Your task to perform on an android device: Open privacy settings Image 0: 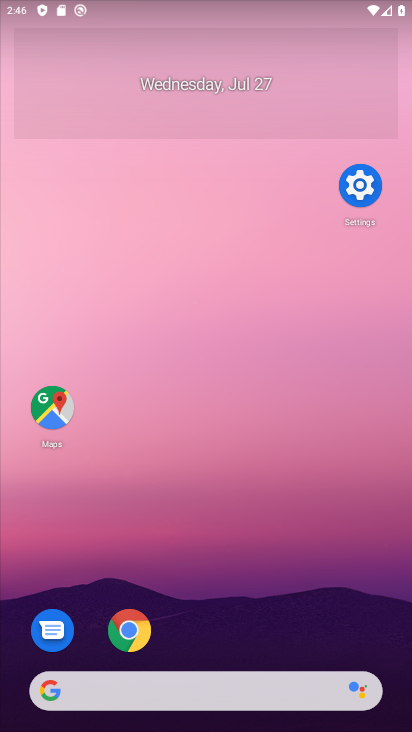
Step 0: press home button
Your task to perform on an android device: Open privacy settings Image 1: 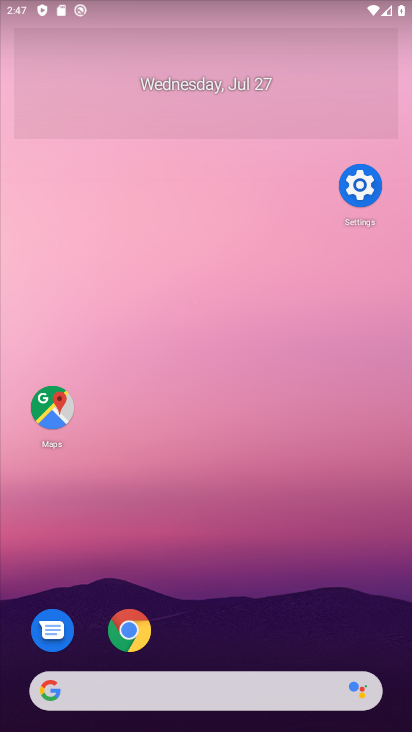
Step 1: drag from (242, 652) to (297, 198)
Your task to perform on an android device: Open privacy settings Image 2: 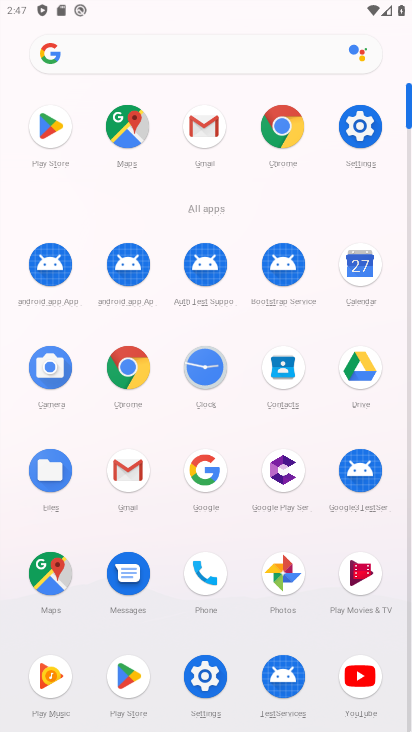
Step 2: click (363, 137)
Your task to perform on an android device: Open privacy settings Image 3: 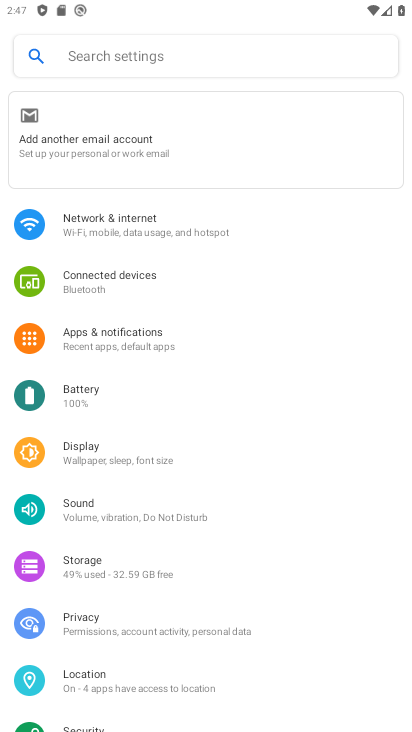
Step 3: click (85, 631)
Your task to perform on an android device: Open privacy settings Image 4: 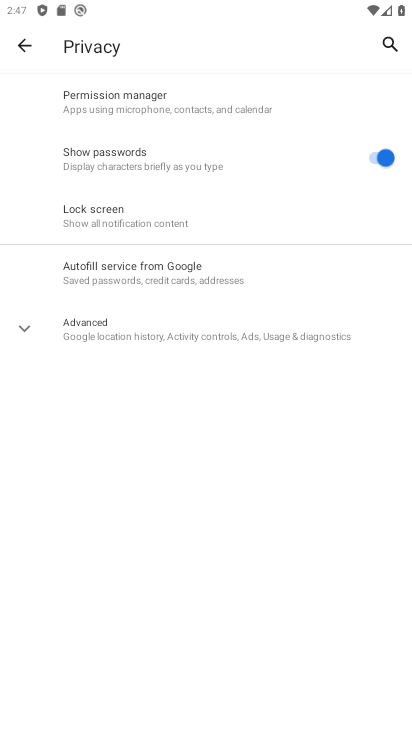
Step 4: task complete